Your task to perform on an android device: toggle translation in the chrome app Image 0: 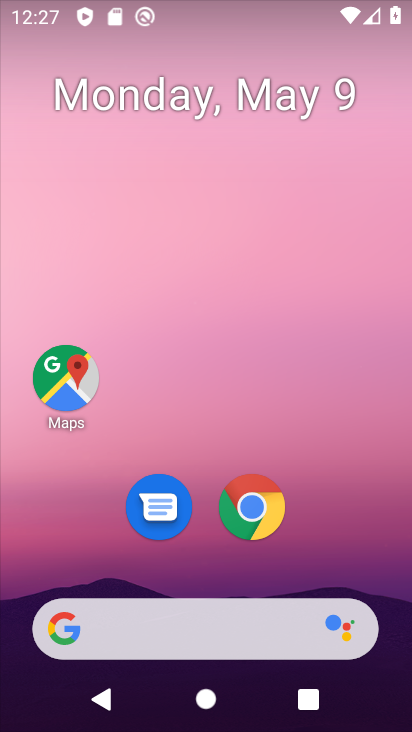
Step 0: drag from (228, 601) to (272, 97)
Your task to perform on an android device: toggle translation in the chrome app Image 1: 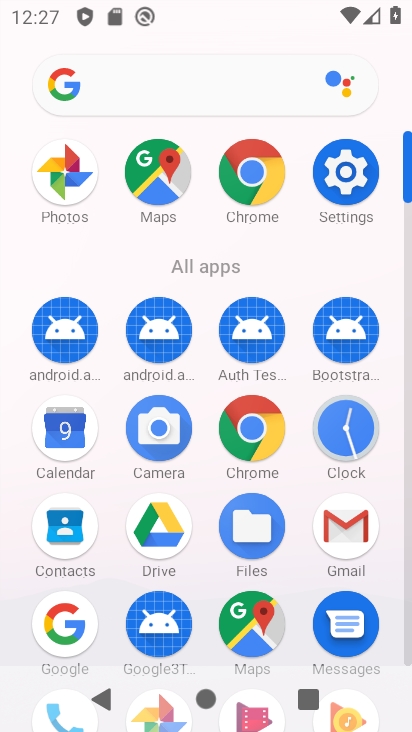
Step 1: click (272, 180)
Your task to perform on an android device: toggle translation in the chrome app Image 2: 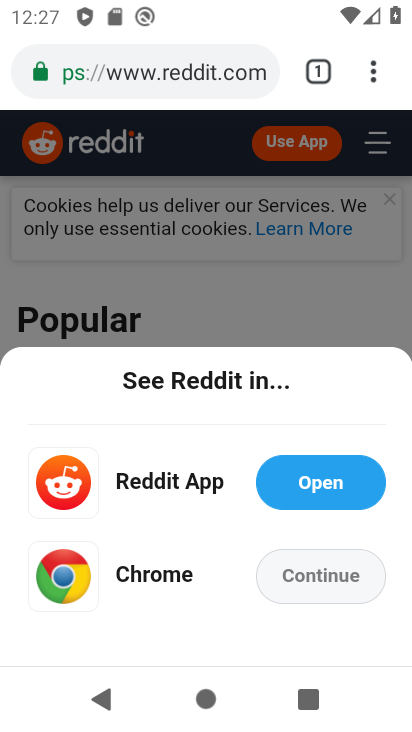
Step 2: click (380, 68)
Your task to perform on an android device: toggle translation in the chrome app Image 3: 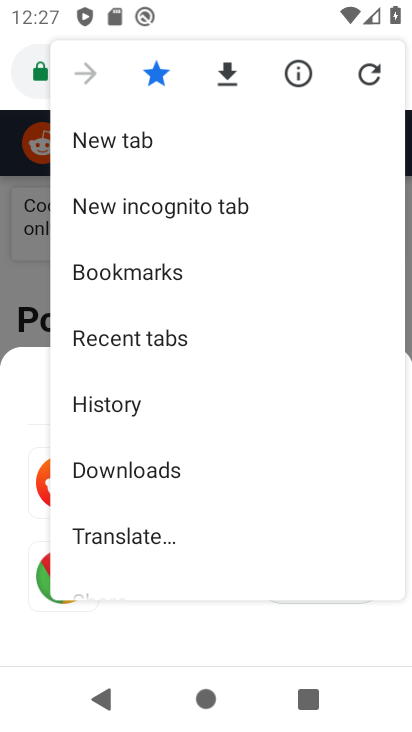
Step 3: drag from (125, 535) to (165, 164)
Your task to perform on an android device: toggle translation in the chrome app Image 4: 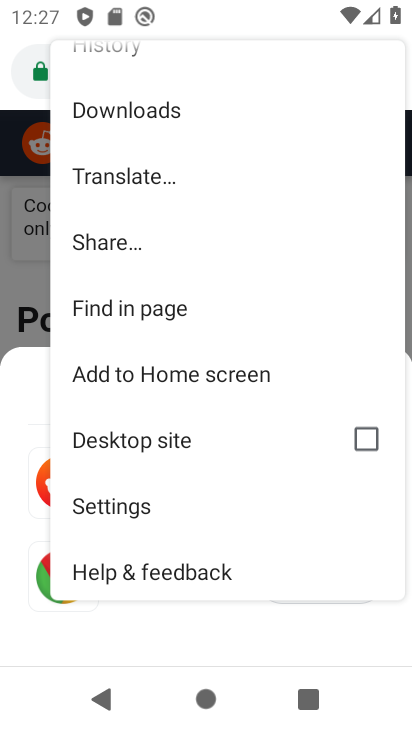
Step 4: click (141, 504)
Your task to perform on an android device: toggle translation in the chrome app Image 5: 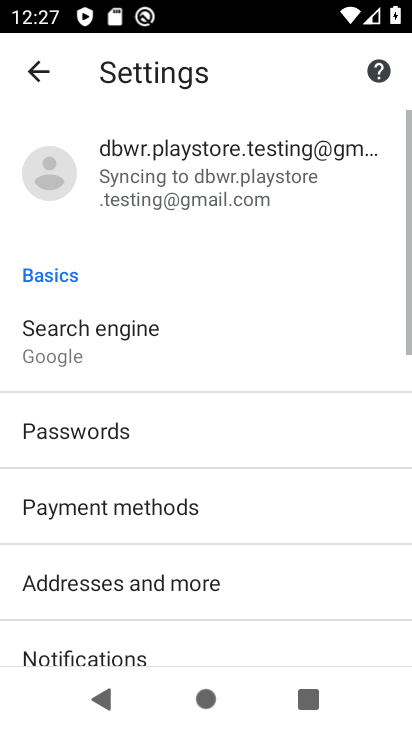
Step 5: drag from (139, 655) to (157, 288)
Your task to perform on an android device: toggle translation in the chrome app Image 6: 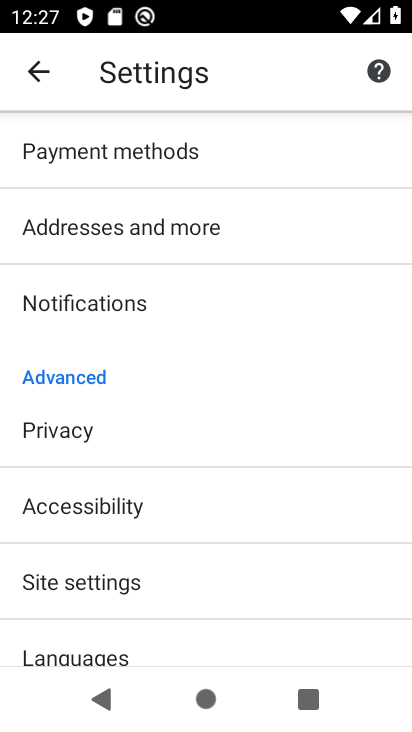
Step 6: click (115, 591)
Your task to perform on an android device: toggle translation in the chrome app Image 7: 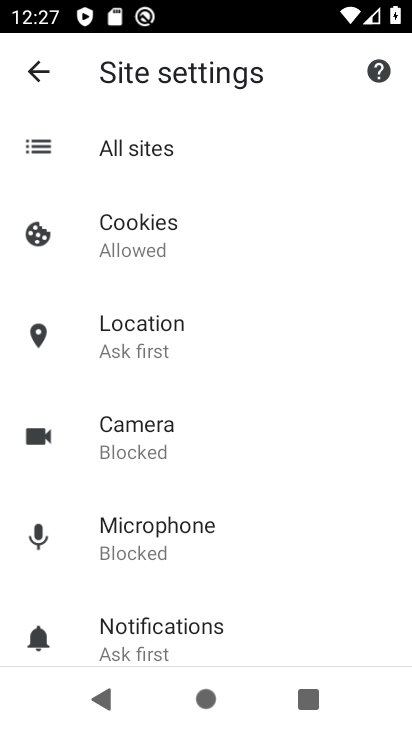
Step 7: drag from (146, 650) to (198, 311)
Your task to perform on an android device: toggle translation in the chrome app Image 8: 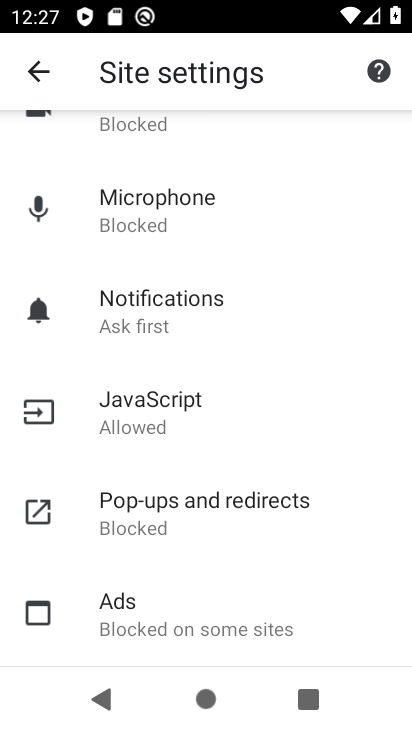
Step 8: drag from (152, 612) to (182, 216)
Your task to perform on an android device: toggle translation in the chrome app Image 9: 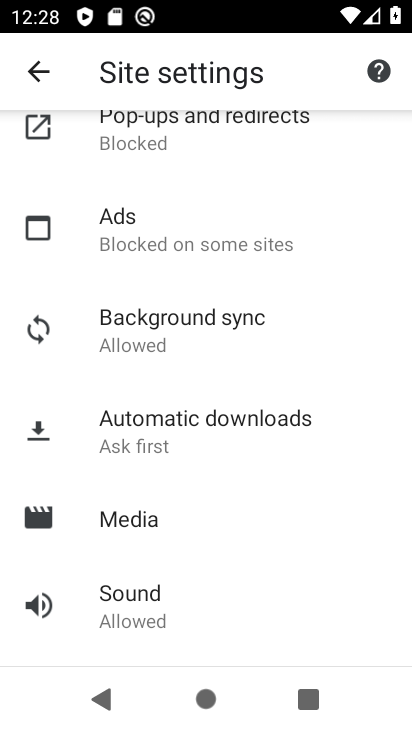
Step 9: click (38, 70)
Your task to perform on an android device: toggle translation in the chrome app Image 10: 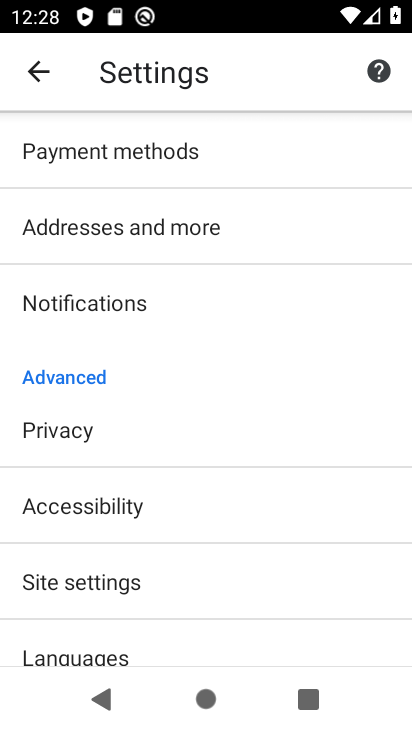
Step 10: drag from (66, 665) to (100, 335)
Your task to perform on an android device: toggle translation in the chrome app Image 11: 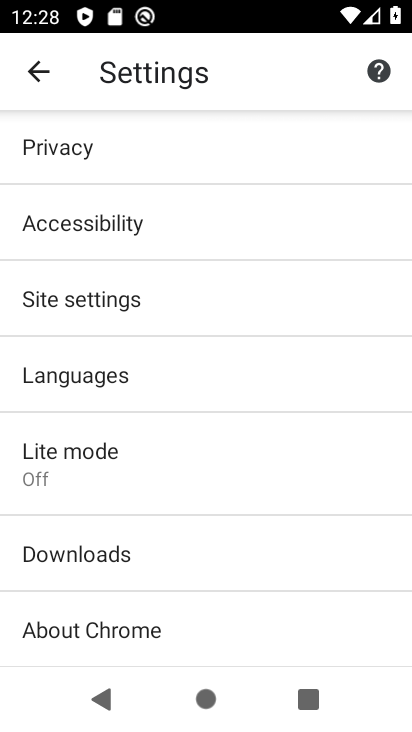
Step 11: click (72, 375)
Your task to perform on an android device: toggle translation in the chrome app Image 12: 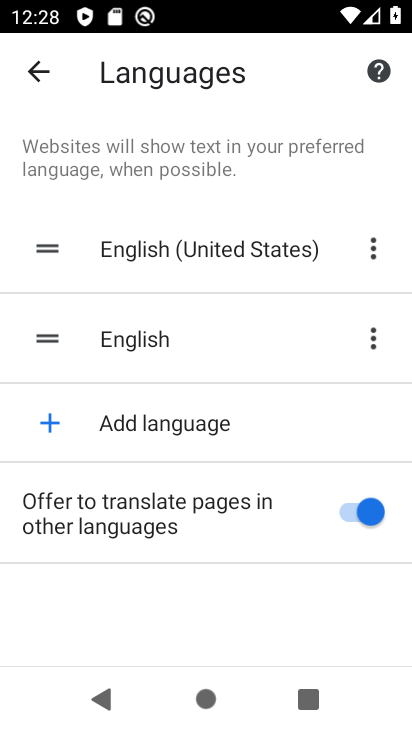
Step 12: click (350, 508)
Your task to perform on an android device: toggle translation in the chrome app Image 13: 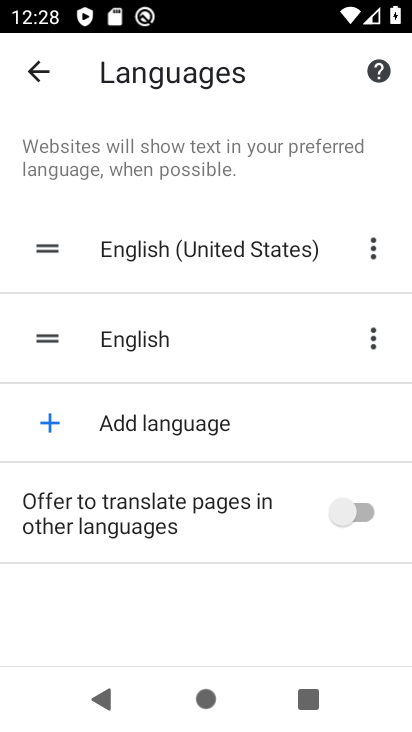
Step 13: task complete